Your task to perform on an android device: visit the assistant section in the google photos Image 0: 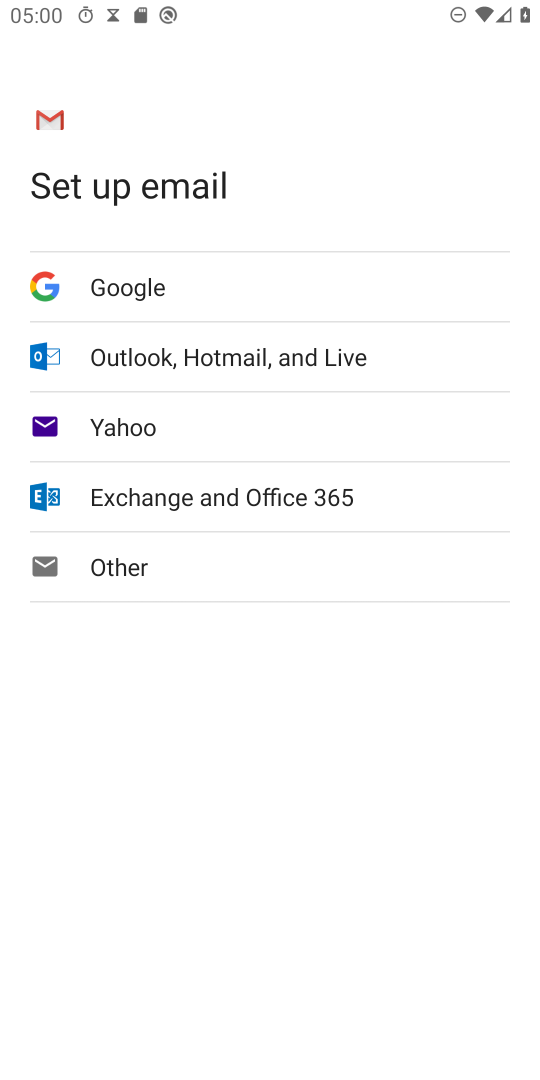
Step 0: press home button
Your task to perform on an android device: visit the assistant section in the google photos Image 1: 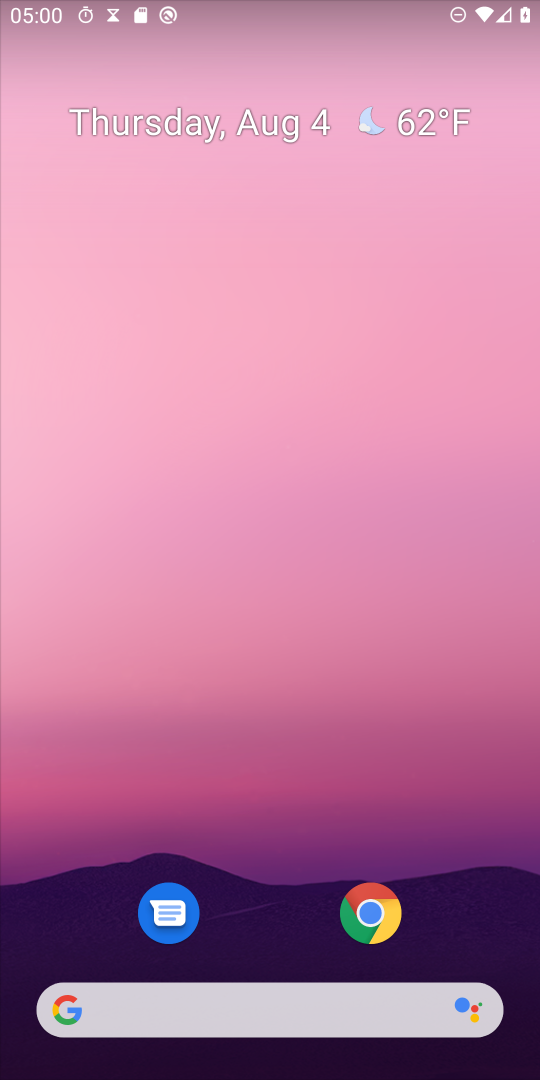
Step 1: drag from (374, 1007) to (302, 120)
Your task to perform on an android device: visit the assistant section in the google photos Image 2: 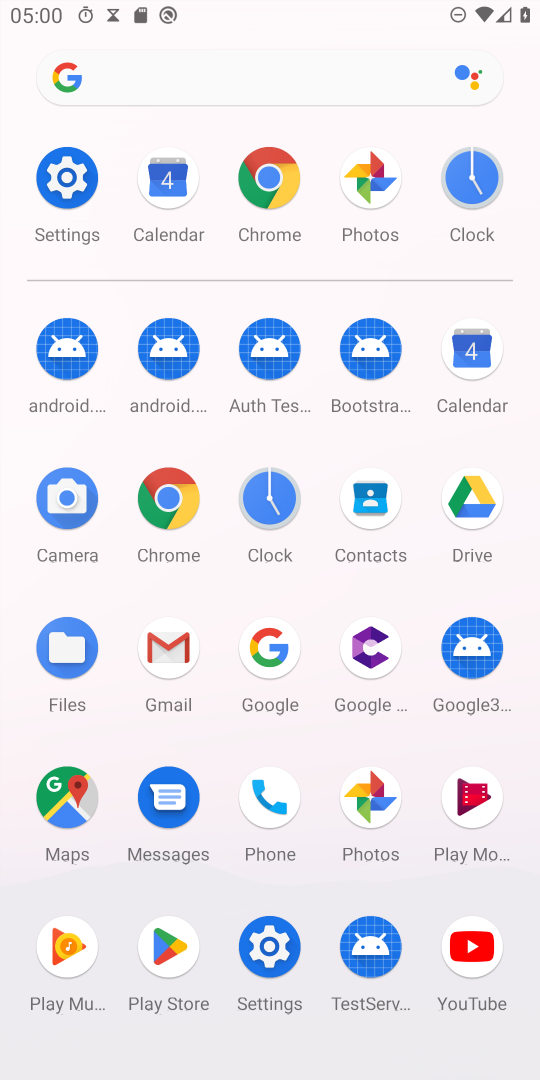
Step 2: click (359, 797)
Your task to perform on an android device: visit the assistant section in the google photos Image 3: 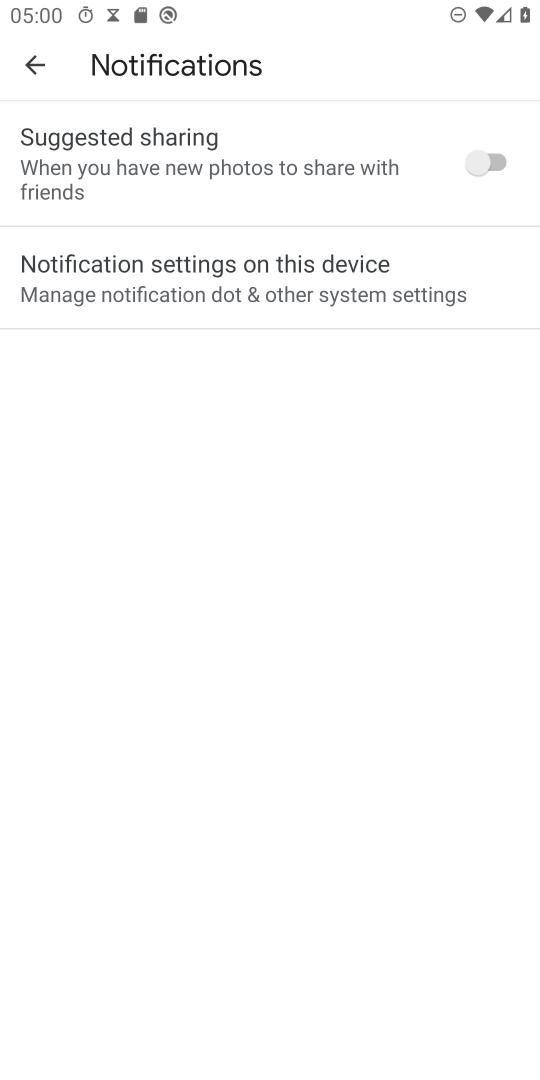
Step 3: press back button
Your task to perform on an android device: visit the assistant section in the google photos Image 4: 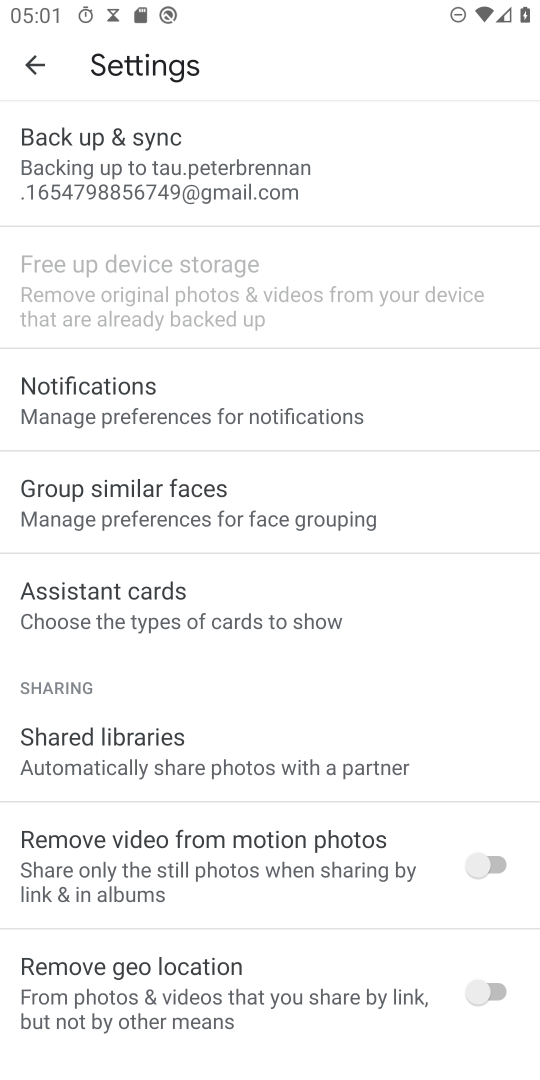
Step 4: press back button
Your task to perform on an android device: visit the assistant section in the google photos Image 5: 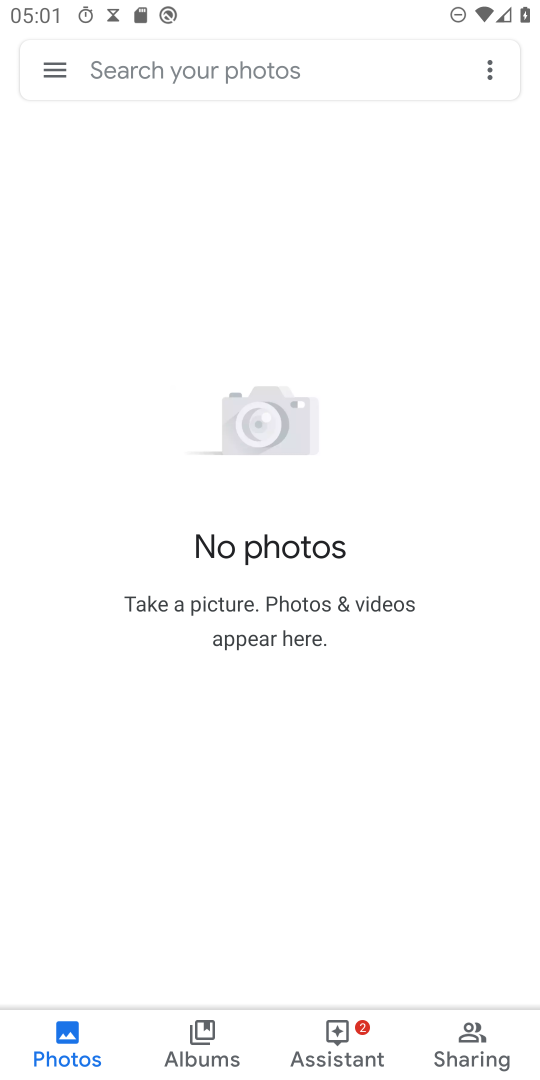
Step 5: click (352, 1025)
Your task to perform on an android device: visit the assistant section in the google photos Image 6: 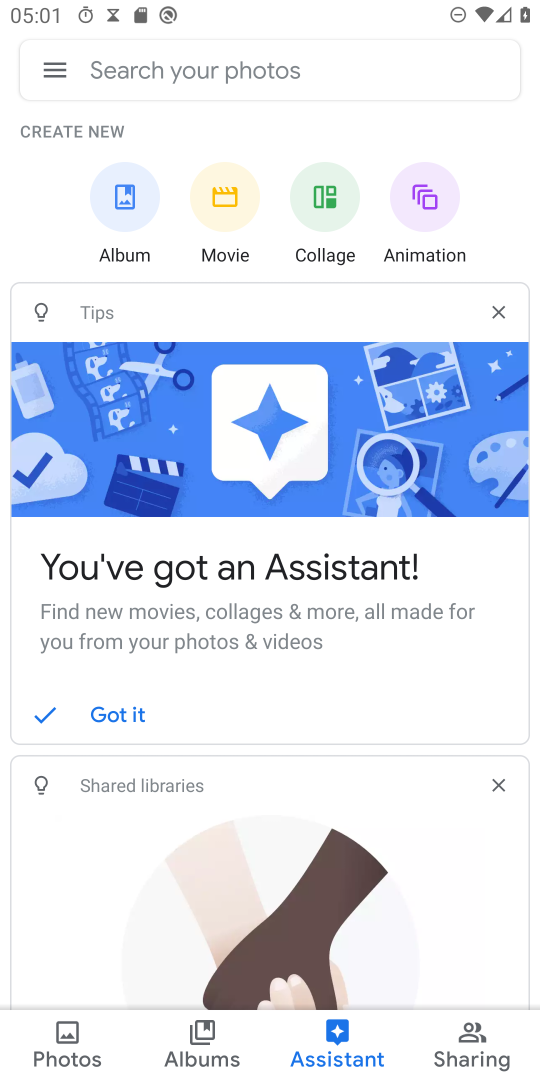
Step 6: task complete